Your task to perform on an android device: Go to location settings Image 0: 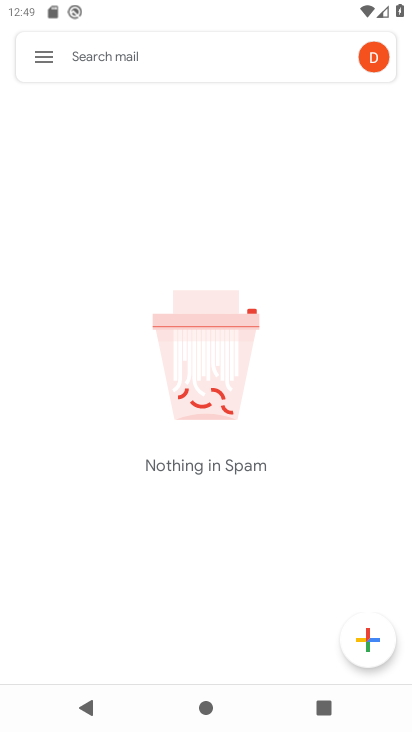
Step 0: press home button
Your task to perform on an android device: Go to location settings Image 1: 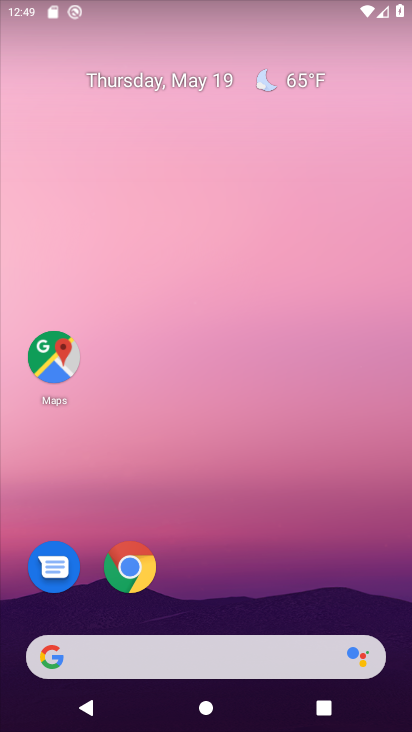
Step 1: drag from (247, 587) to (292, 24)
Your task to perform on an android device: Go to location settings Image 2: 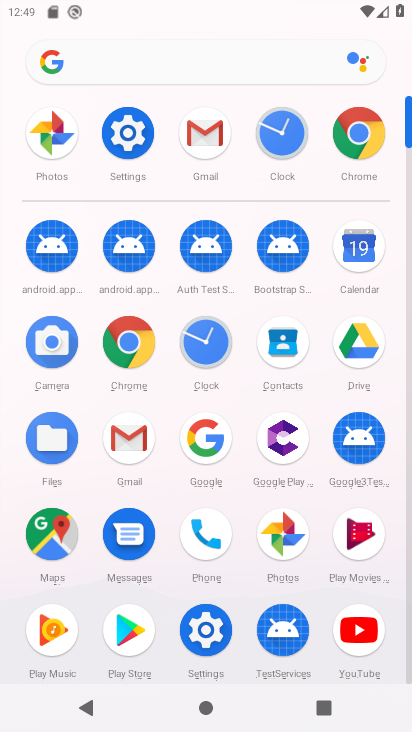
Step 2: click (136, 132)
Your task to perform on an android device: Go to location settings Image 3: 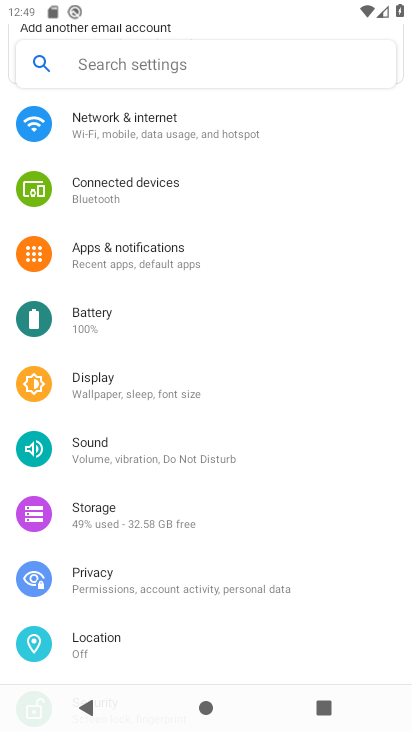
Step 3: click (113, 615)
Your task to perform on an android device: Go to location settings Image 4: 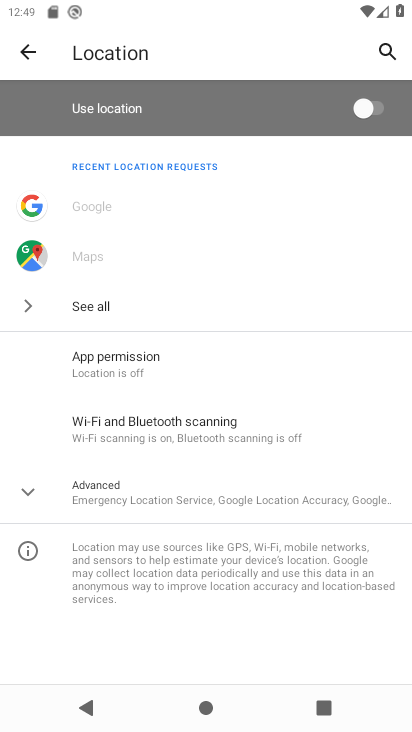
Step 4: task complete